Your task to perform on an android device: manage bookmarks in the chrome app Image 0: 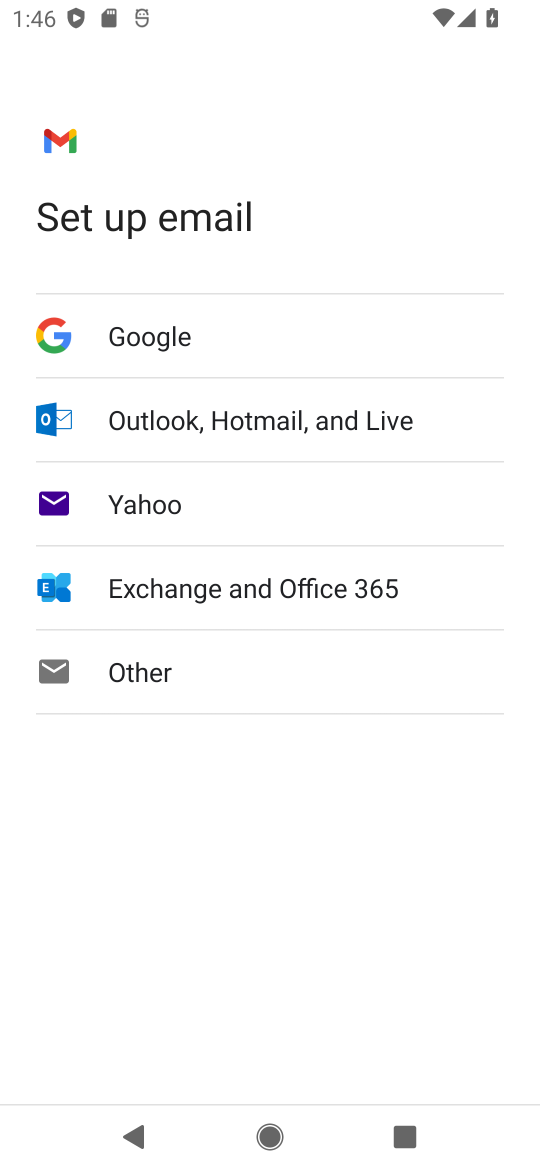
Step 0: press home button
Your task to perform on an android device: manage bookmarks in the chrome app Image 1: 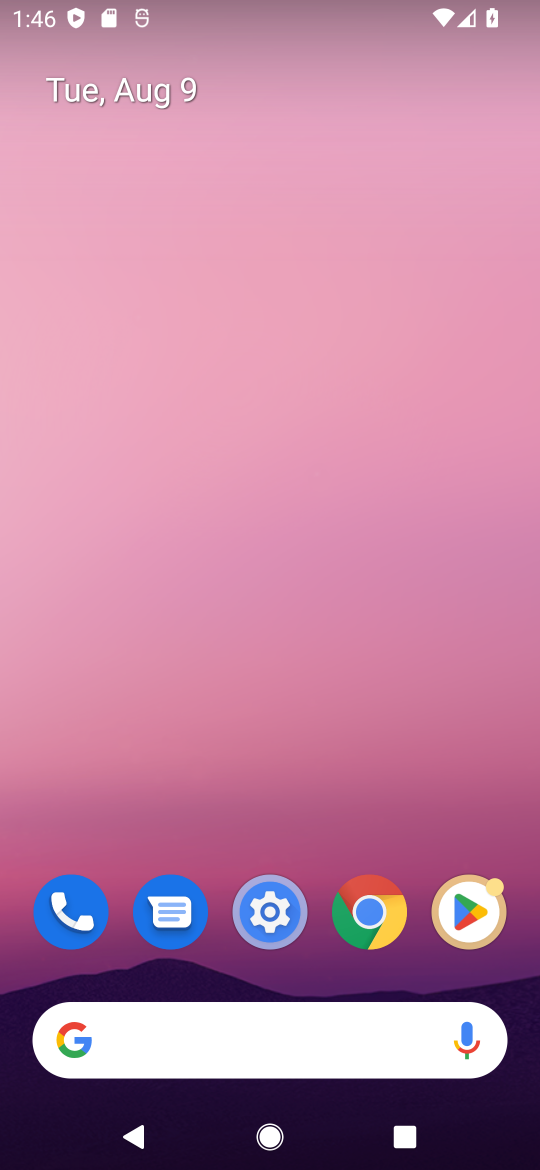
Step 1: click (369, 910)
Your task to perform on an android device: manage bookmarks in the chrome app Image 2: 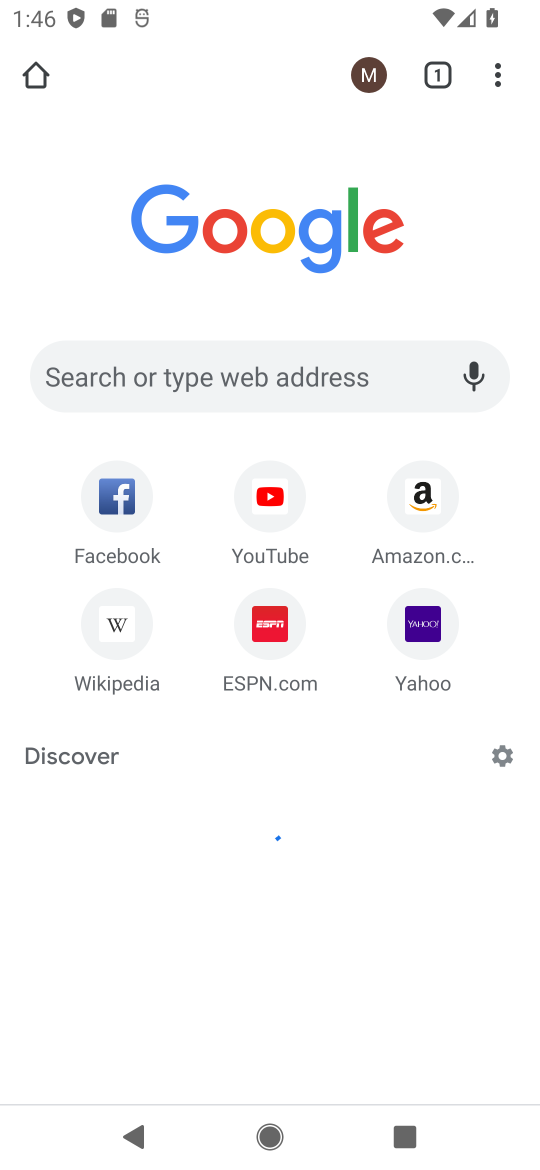
Step 2: click (494, 74)
Your task to perform on an android device: manage bookmarks in the chrome app Image 3: 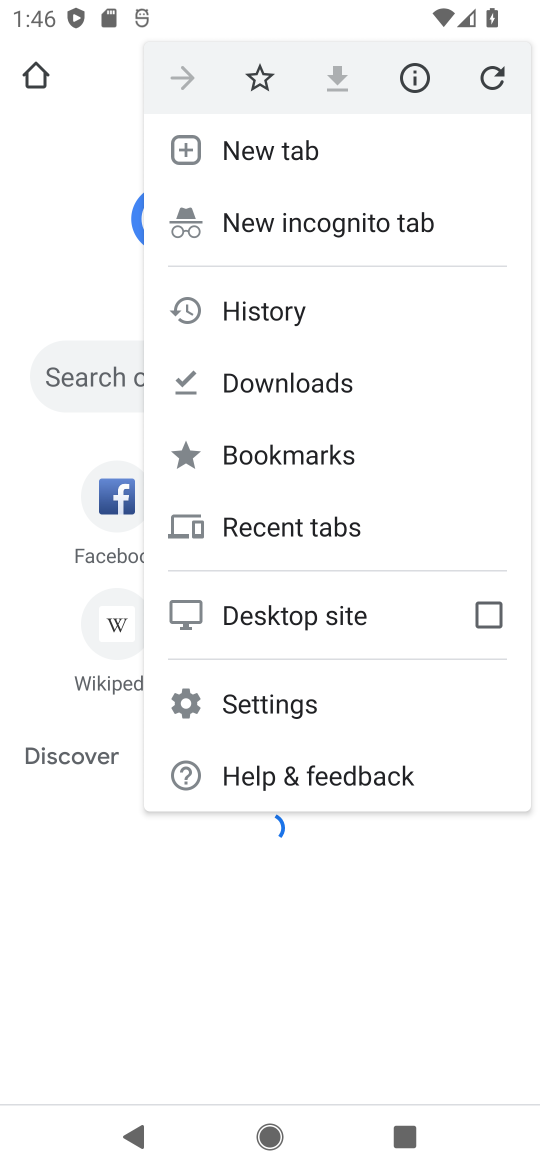
Step 3: click (283, 460)
Your task to perform on an android device: manage bookmarks in the chrome app Image 4: 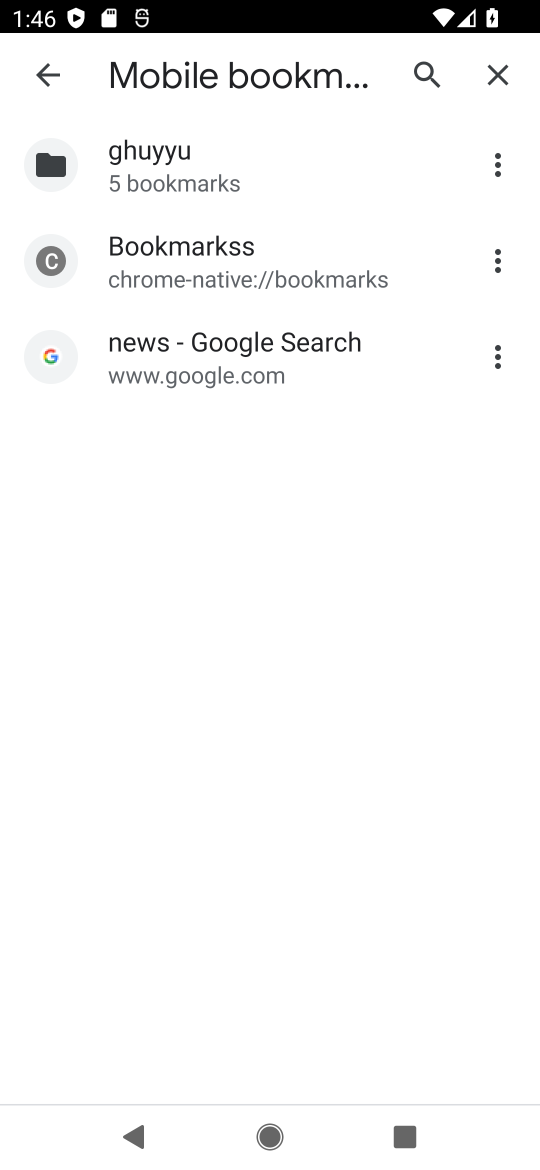
Step 4: click (497, 151)
Your task to perform on an android device: manage bookmarks in the chrome app Image 5: 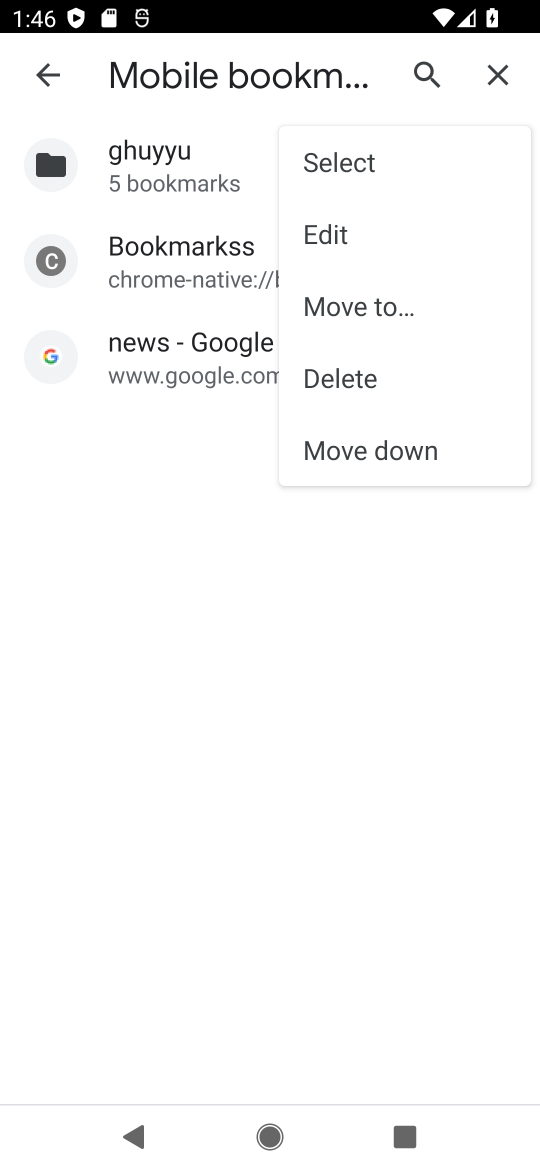
Step 5: click (325, 223)
Your task to perform on an android device: manage bookmarks in the chrome app Image 6: 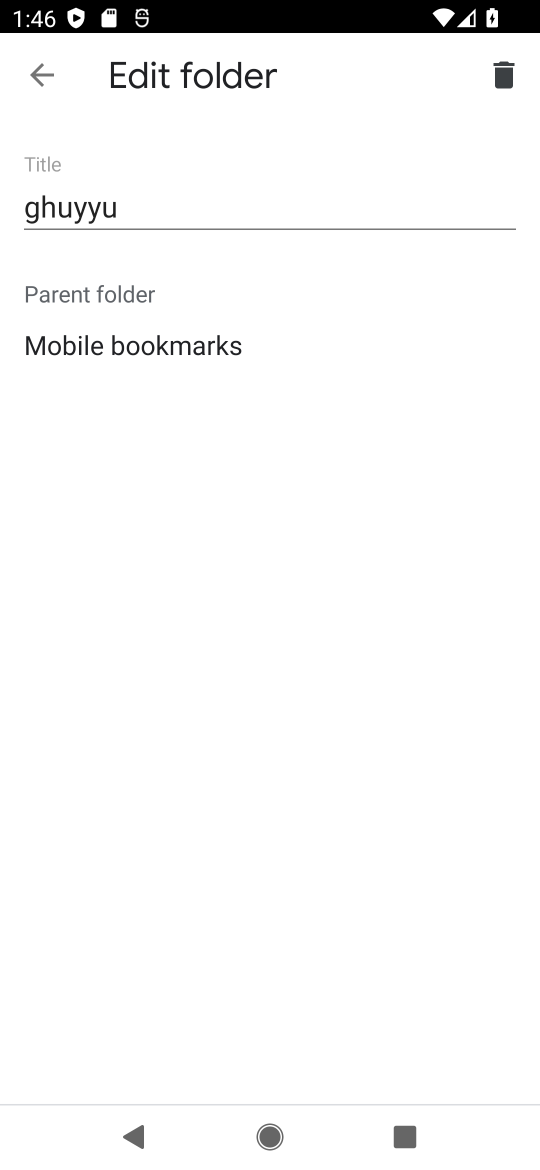
Step 6: task complete